Your task to perform on an android device: Open maps Image 0: 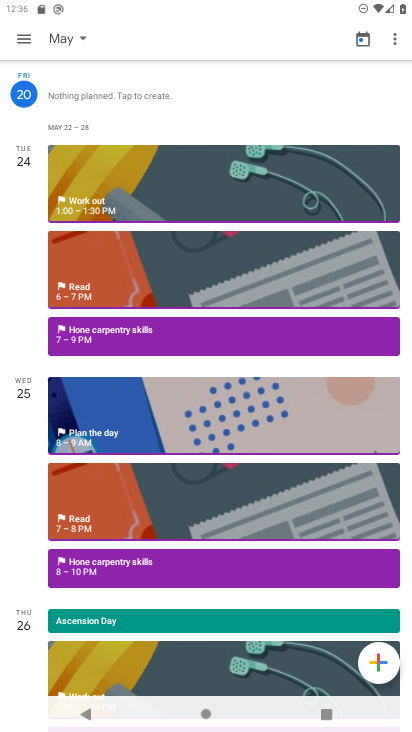
Step 0: press home button
Your task to perform on an android device: Open maps Image 1: 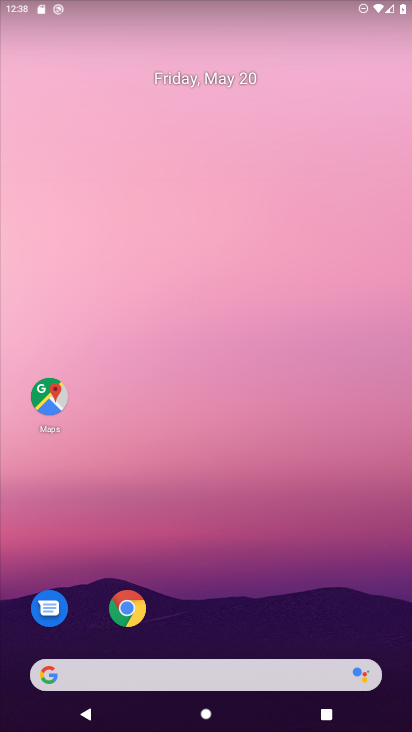
Step 1: click (49, 406)
Your task to perform on an android device: Open maps Image 2: 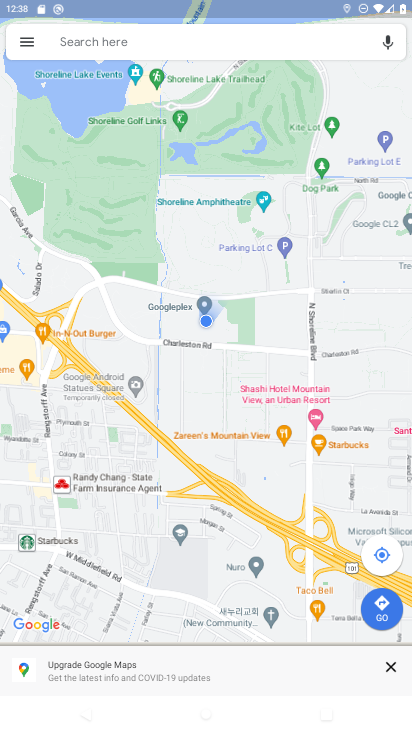
Step 2: task complete